Your task to perform on an android device: Add duracell triple a to the cart on costco, then select checkout. Image 0: 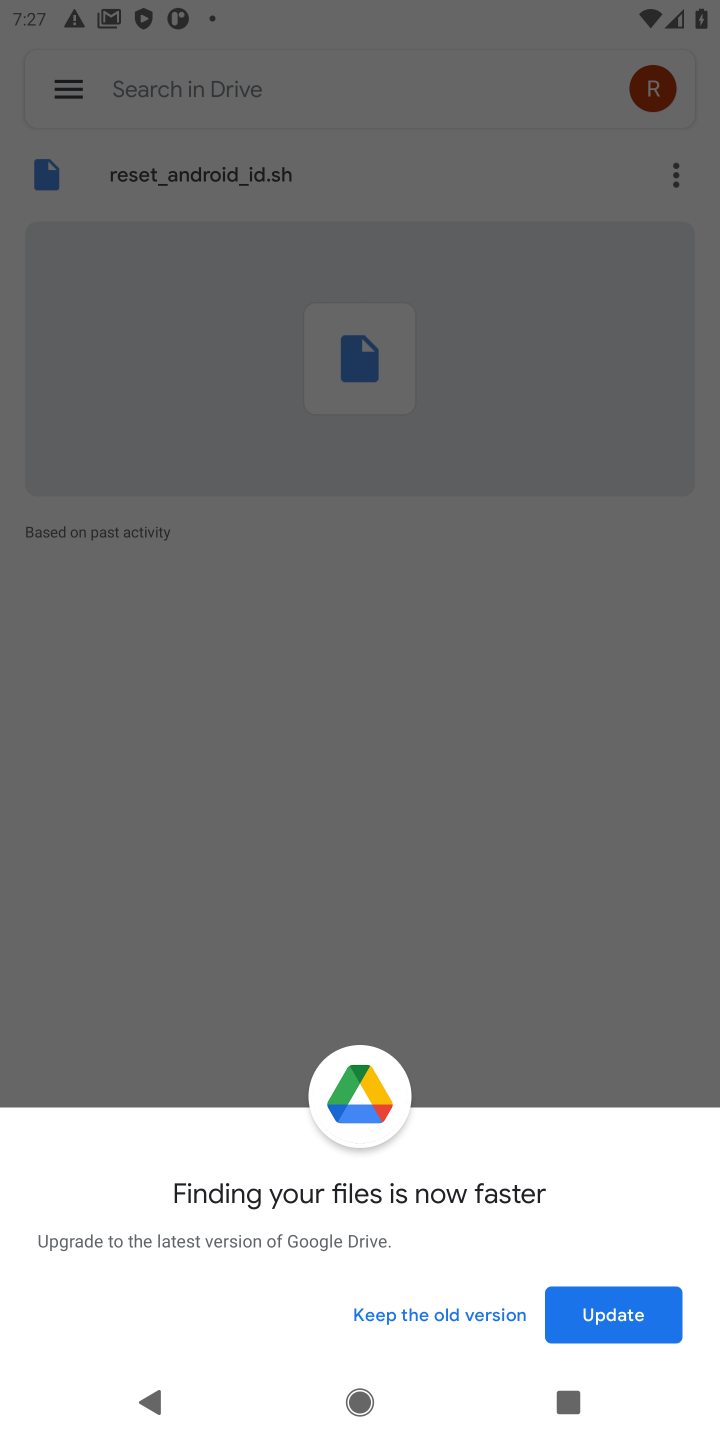
Step 0: press home button
Your task to perform on an android device: Add duracell triple a to the cart on costco, then select checkout. Image 1: 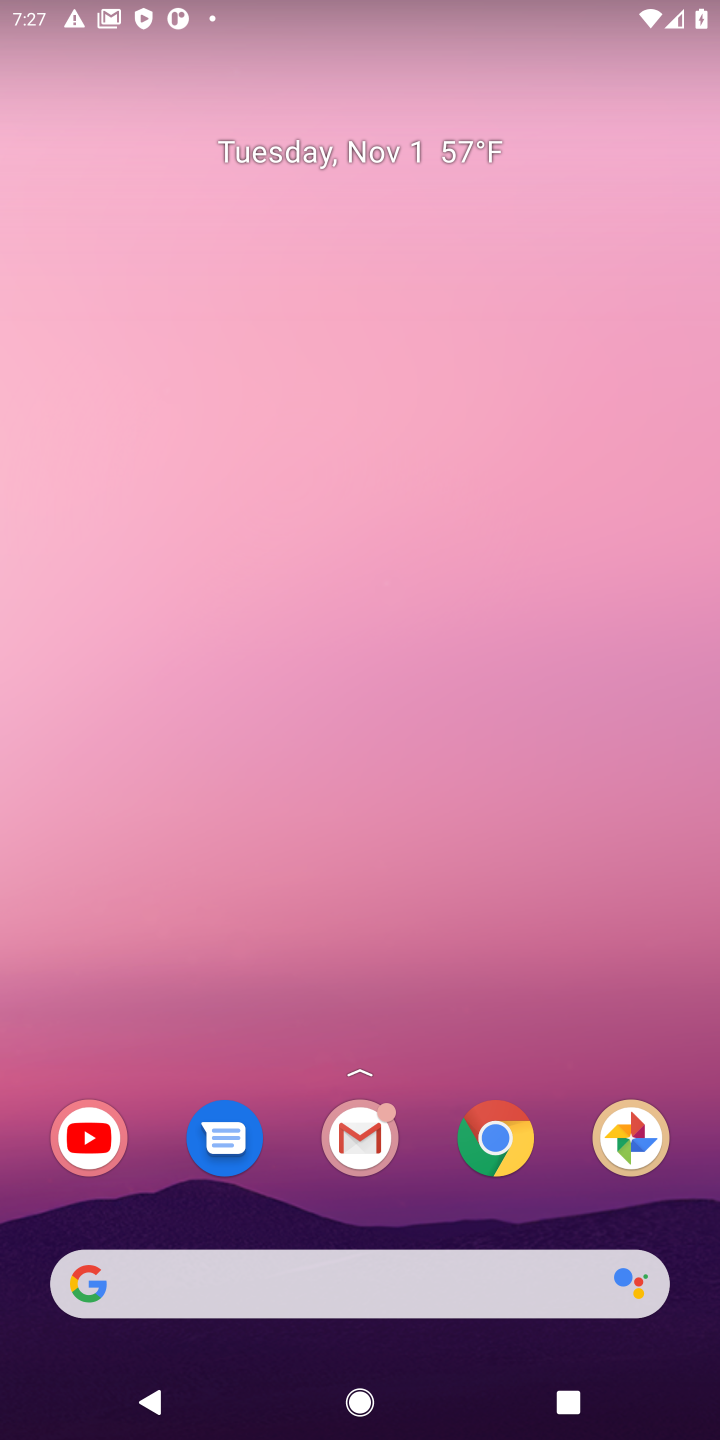
Step 1: click (488, 1154)
Your task to perform on an android device: Add duracell triple a to the cart on costco, then select checkout. Image 2: 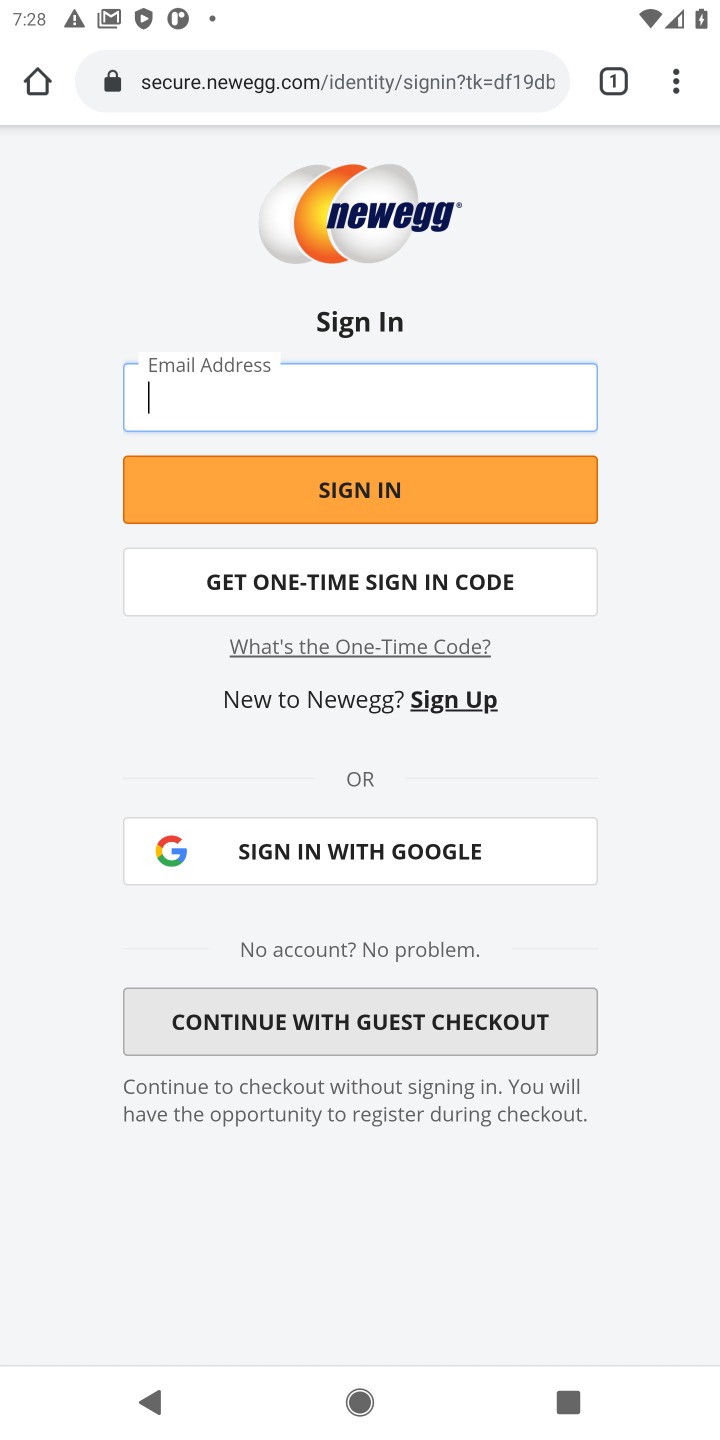
Step 2: click (253, 79)
Your task to perform on an android device: Add duracell triple a to the cart on costco, then select checkout. Image 3: 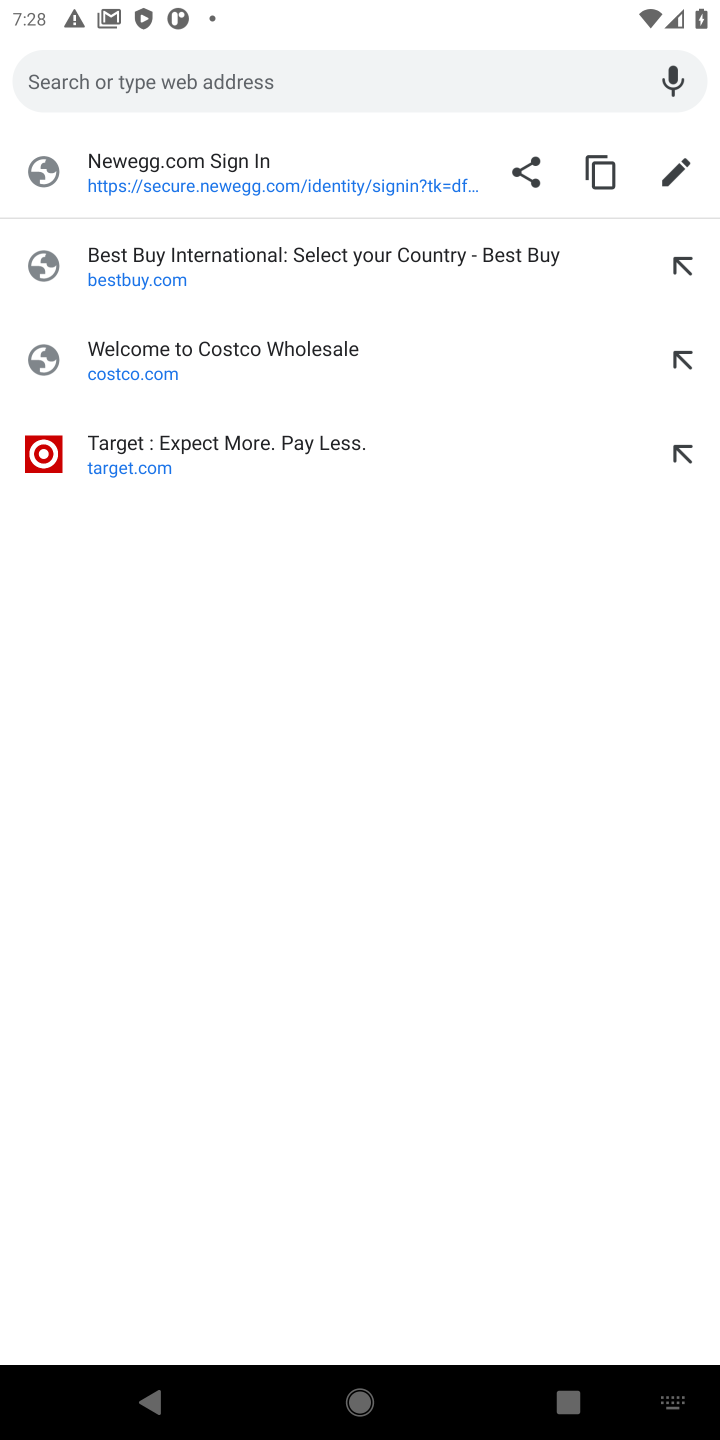
Step 3: type "costco.com"
Your task to perform on an android device: Add duracell triple a to the cart on costco, then select checkout. Image 4: 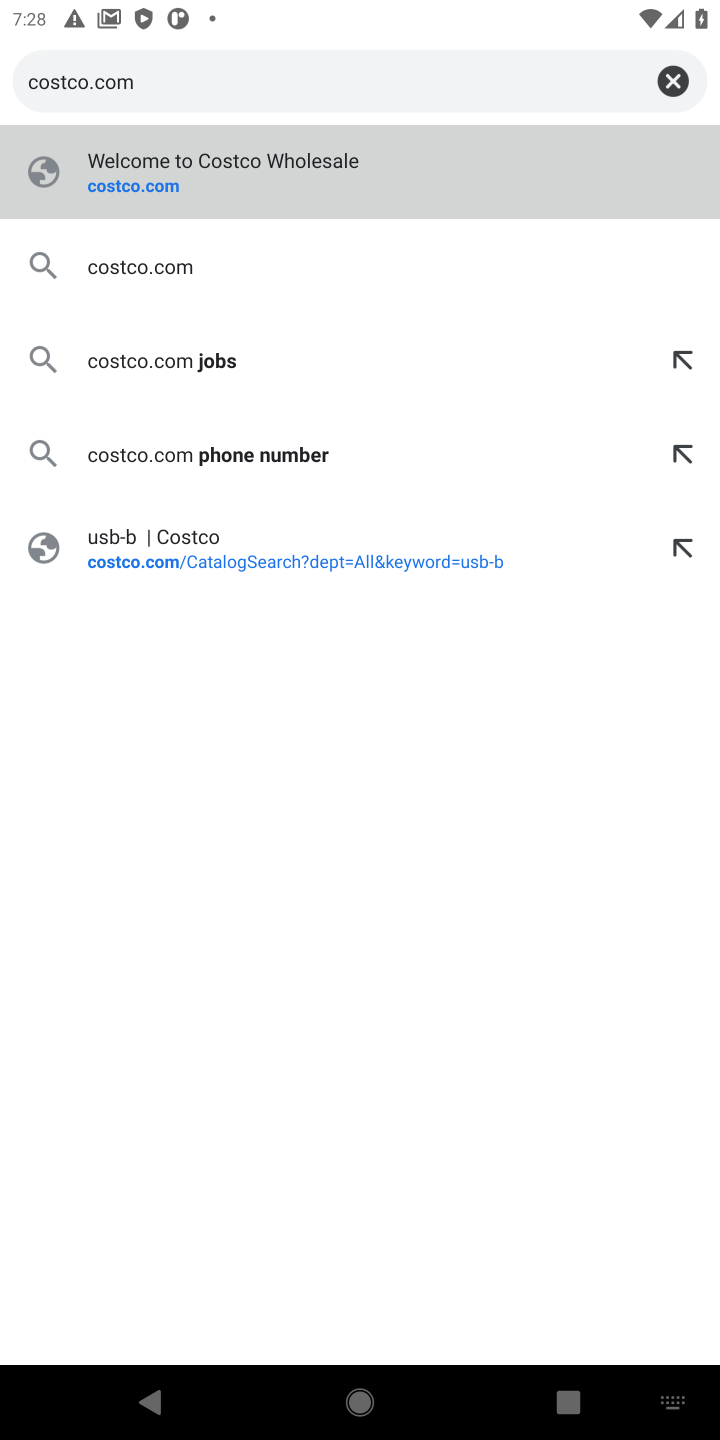
Step 4: click (162, 188)
Your task to perform on an android device: Add duracell triple a to the cart on costco, then select checkout. Image 5: 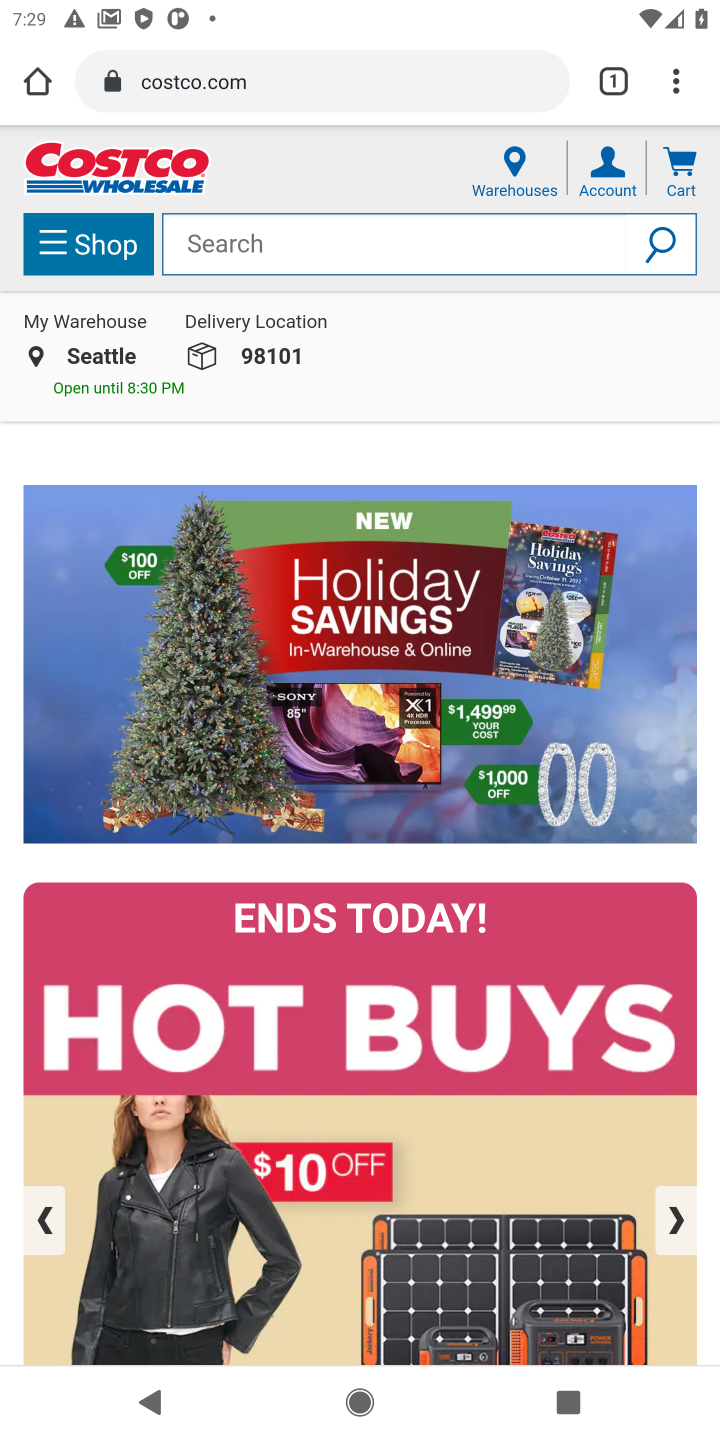
Step 5: click (295, 249)
Your task to perform on an android device: Add duracell triple a to the cart on costco, then select checkout. Image 6: 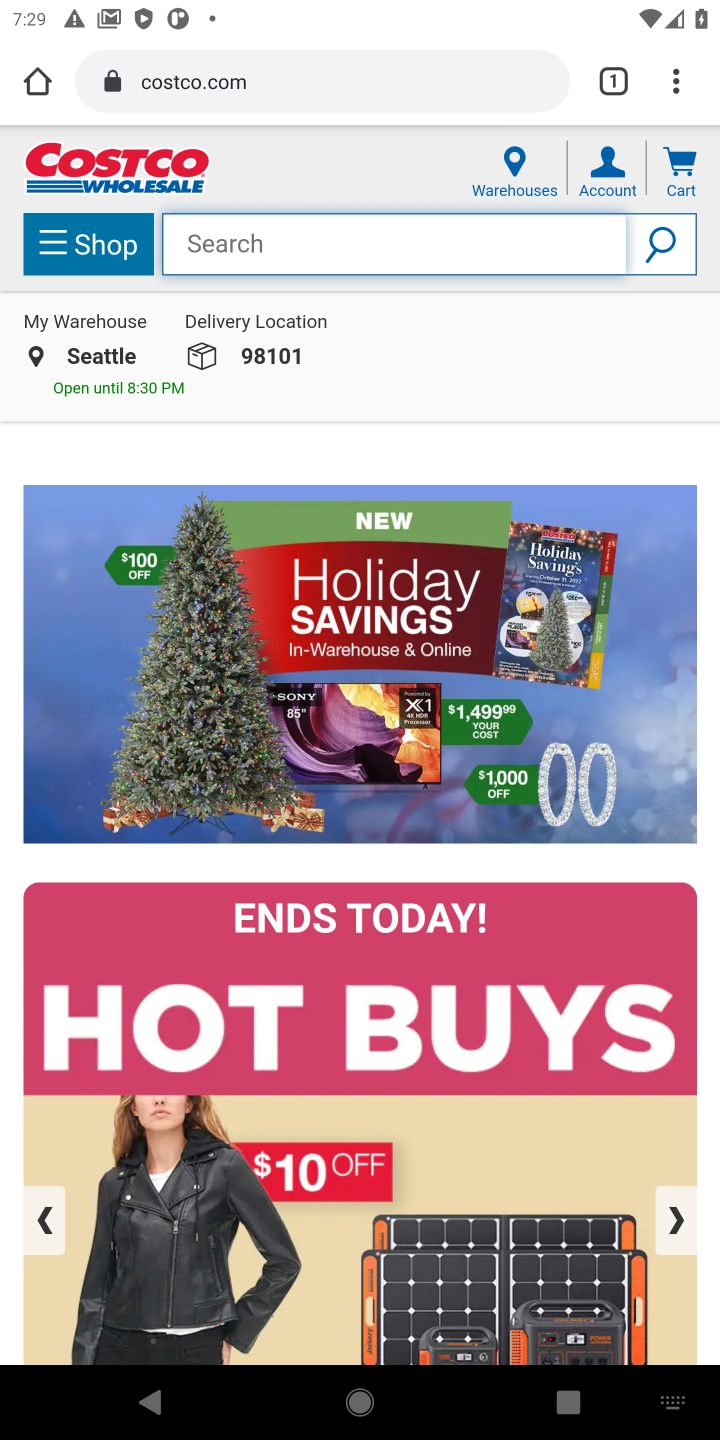
Step 6: type "duracell triple"
Your task to perform on an android device: Add duracell triple a to the cart on costco, then select checkout. Image 7: 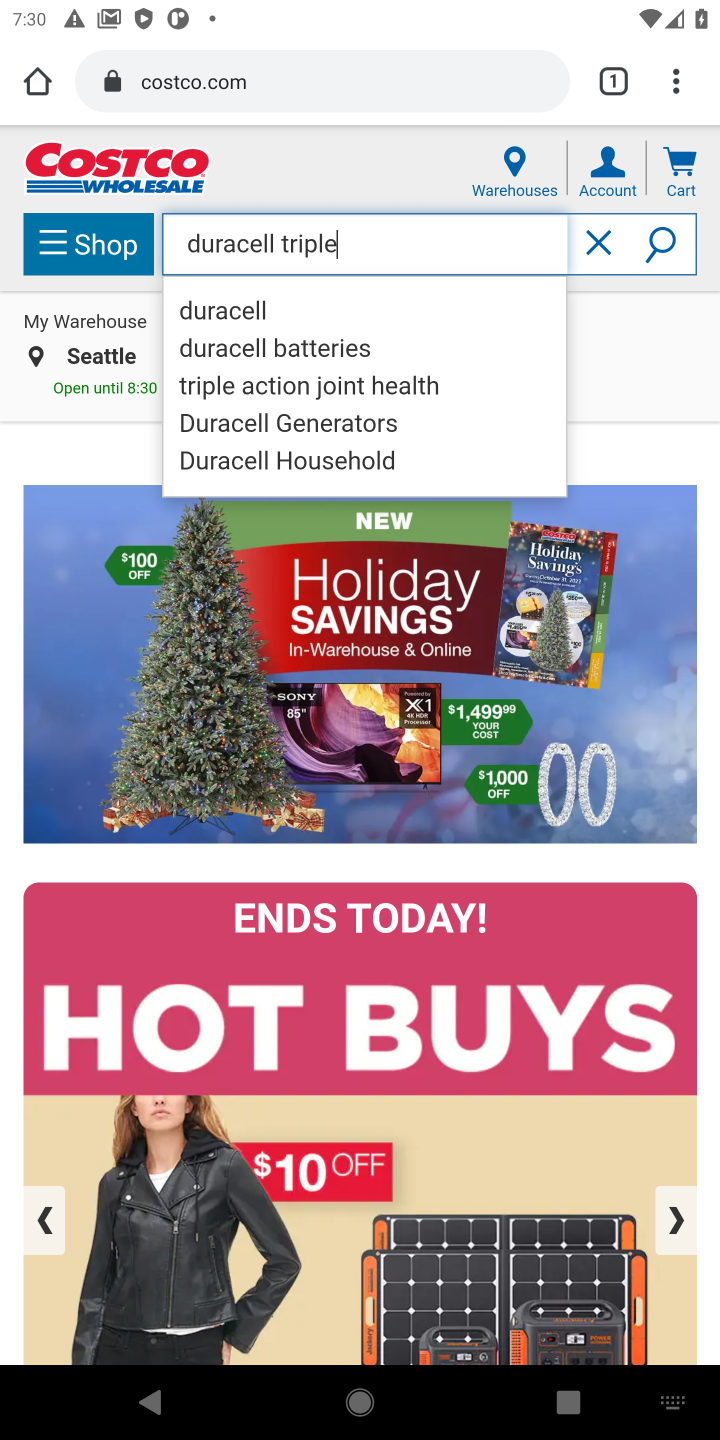
Step 7: click (674, 246)
Your task to perform on an android device: Add duracell triple a to the cart on costco, then select checkout. Image 8: 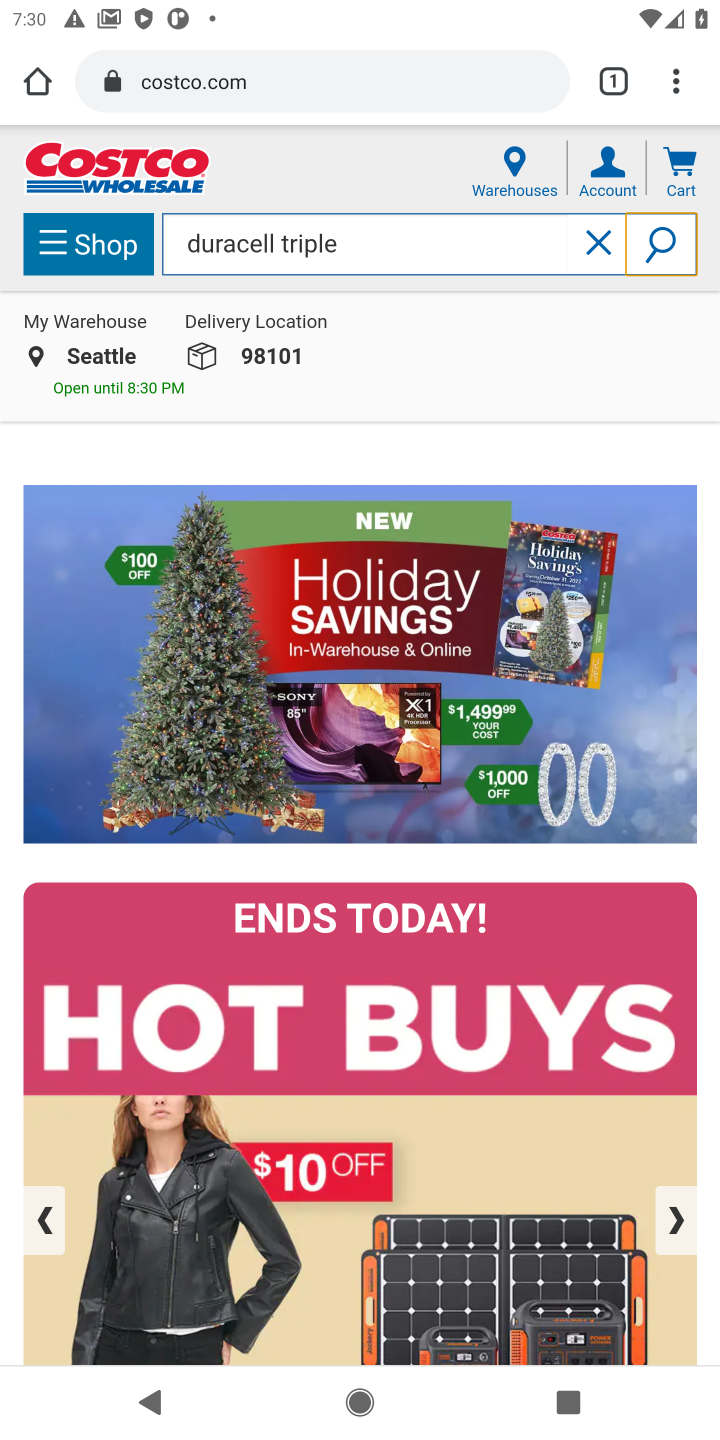
Step 8: click (660, 253)
Your task to perform on an android device: Add duracell triple a to the cart on costco, then select checkout. Image 9: 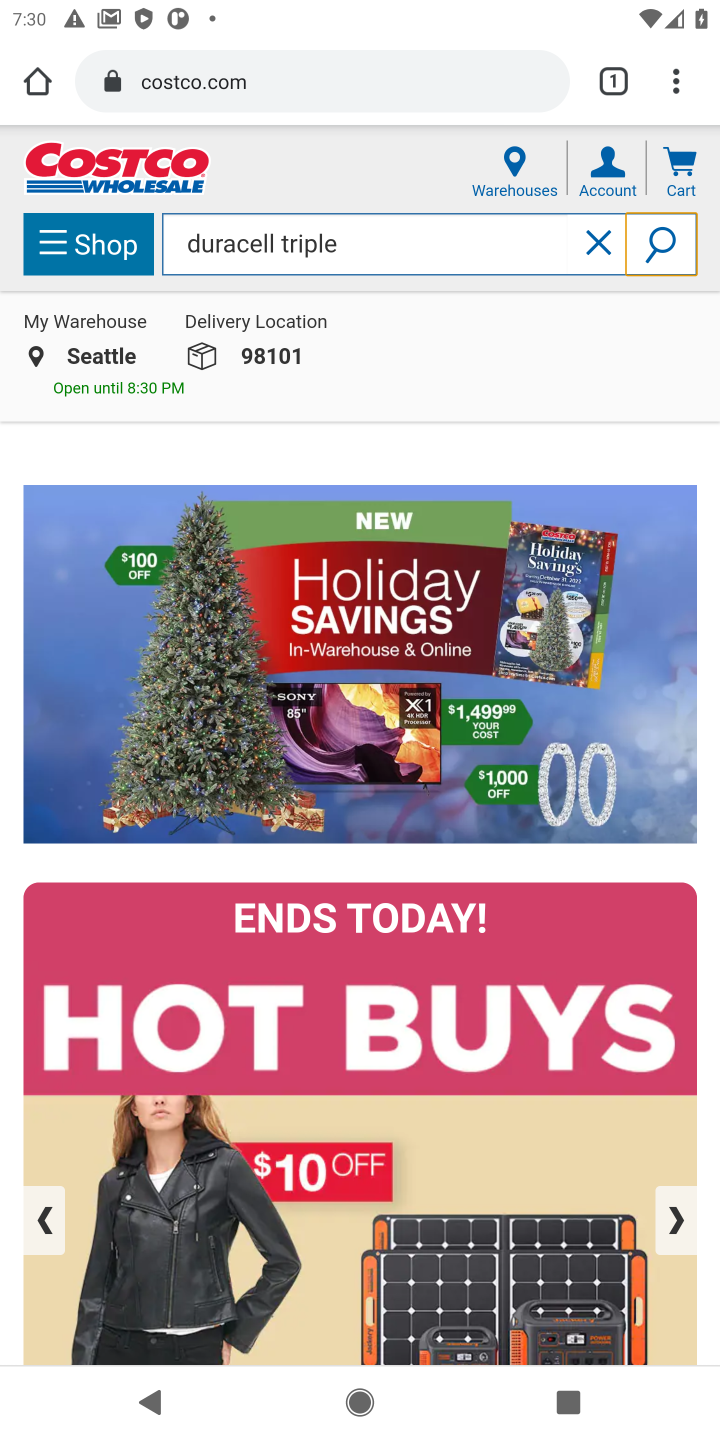
Step 9: click (657, 248)
Your task to perform on an android device: Add duracell triple a to the cart on costco, then select checkout. Image 10: 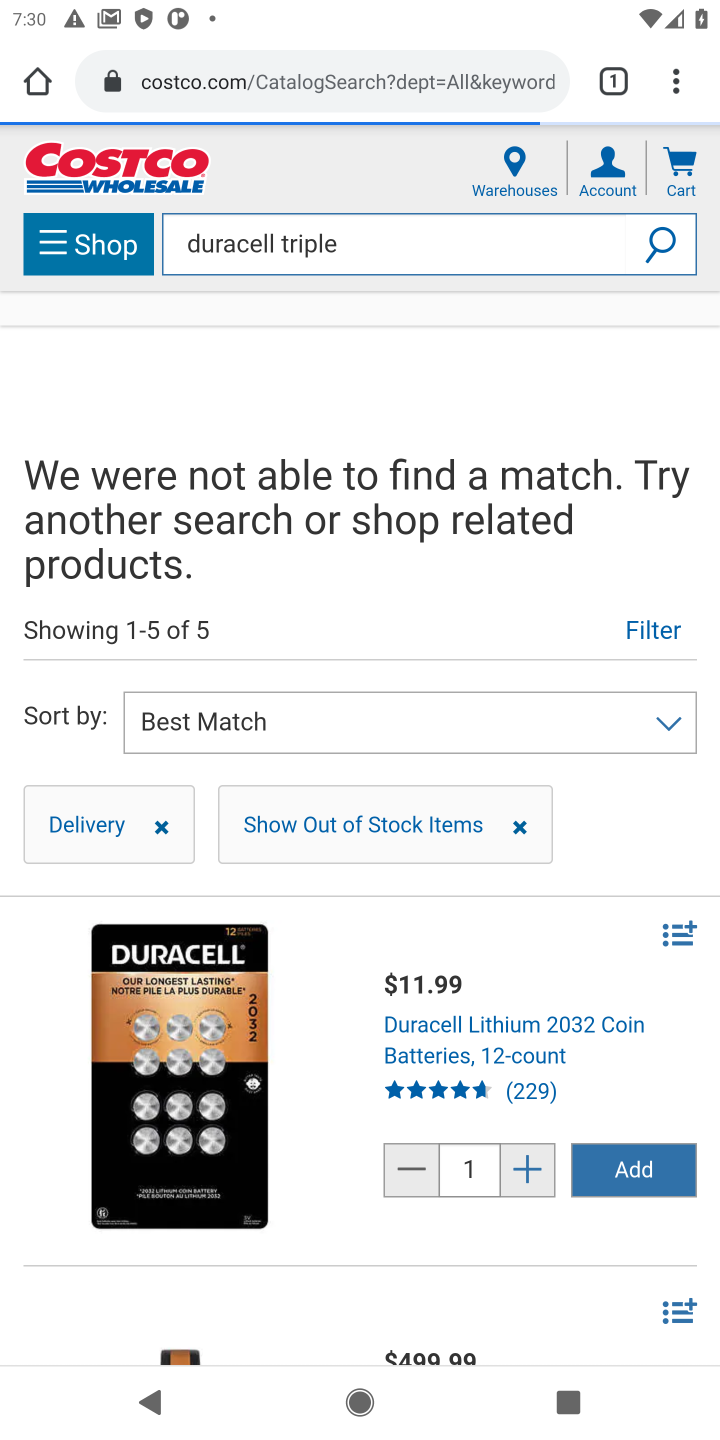
Step 10: click (365, 248)
Your task to perform on an android device: Add duracell triple a to the cart on costco, then select checkout. Image 11: 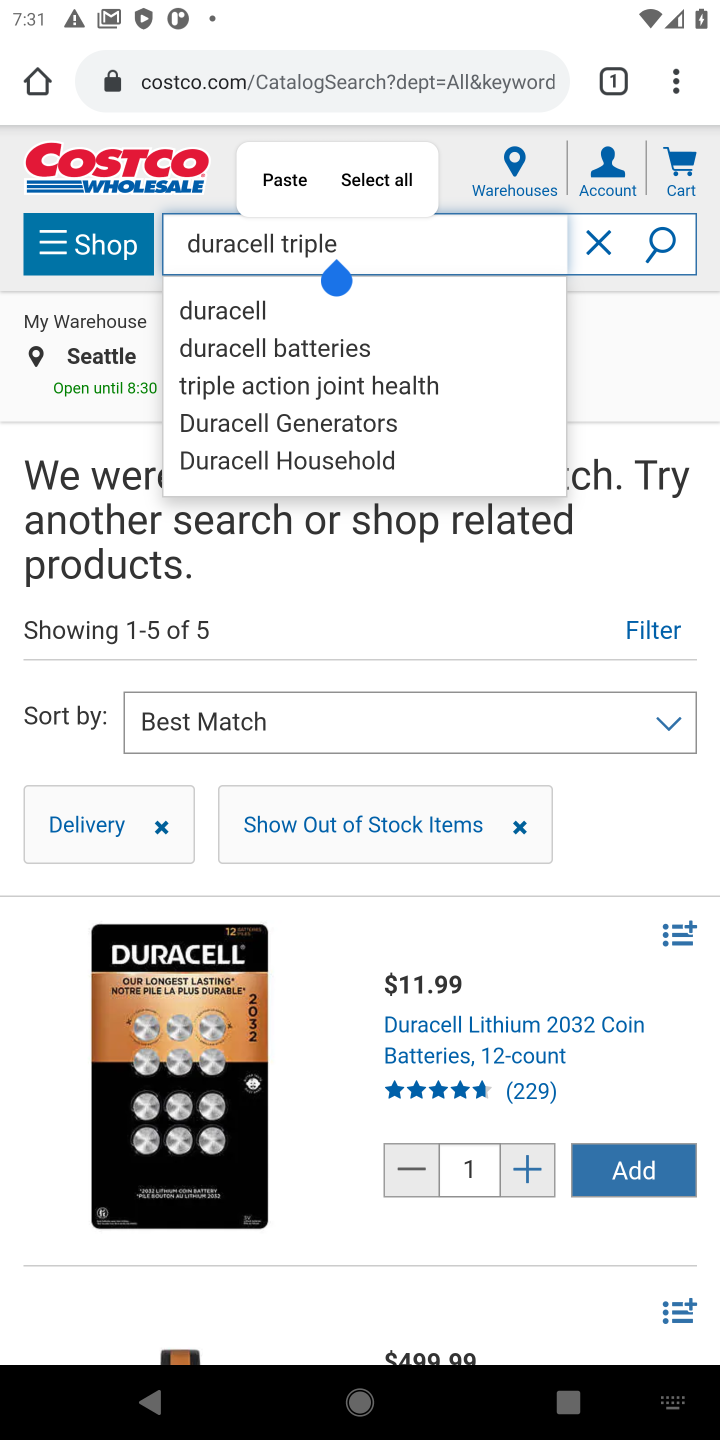
Step 11: type " a"
Your task to perform on an android device: Add duracell triple a to the cart on costco, then select checkout. Image 12: 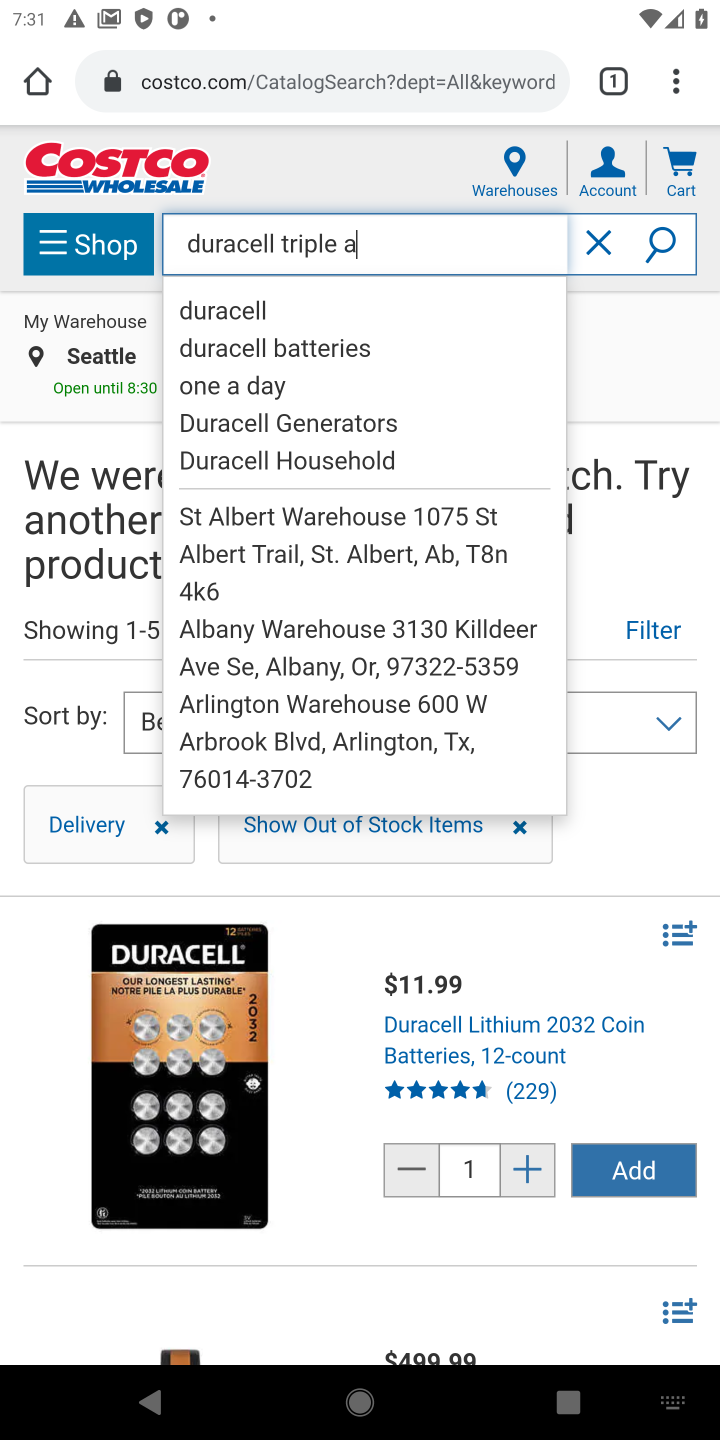
Step 12: click (652, 246)
Your task to perform on an android device: Add duracell triple a to the cart on costco, then select checkout. Image 13: 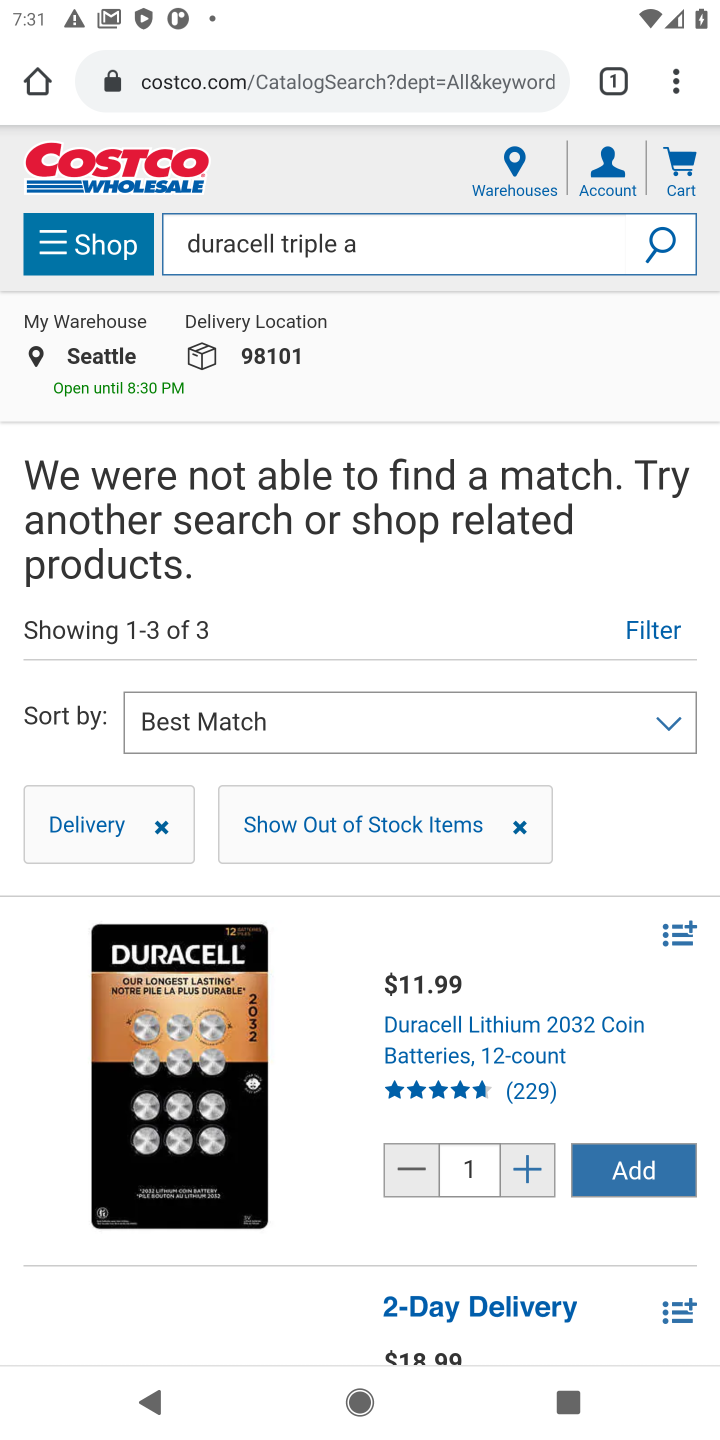
Step 13: task complete